Your task to perform on an android device: Show me recent news Image 0: 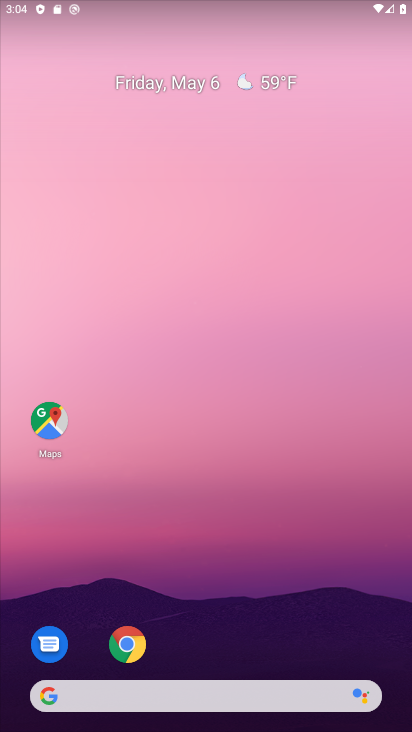
Step 0: drag from (234, 465) to (170, 170)
Your task to perform on an android device: Show me recent news Image 1: 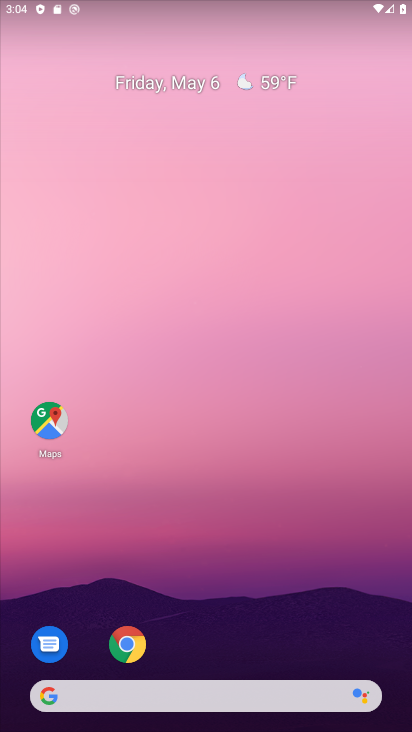
Step 1: drag from (209, 563) to (199, 53)
Your task to perform on an android device: Show me recent news Image 2: 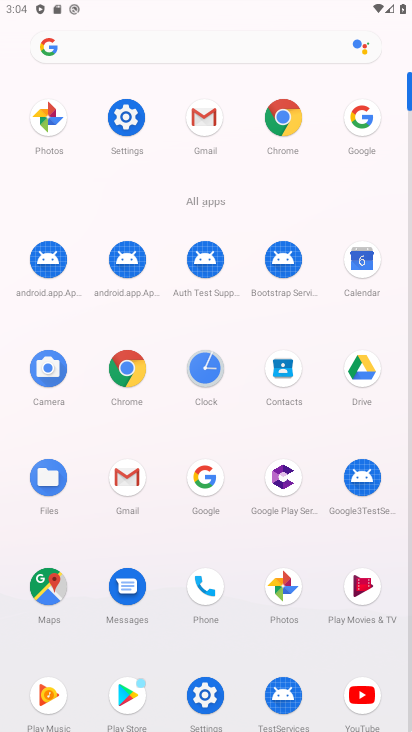
Step 2: click (360, 115)
Your task to perform on an android device: Show me recent news Image 3: 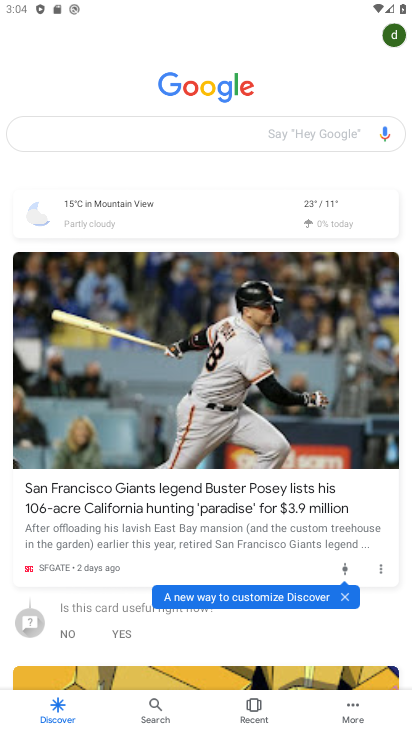
Step 3: click (212, 132)
Your task to perform on an android device: Show me recent news Image 4: 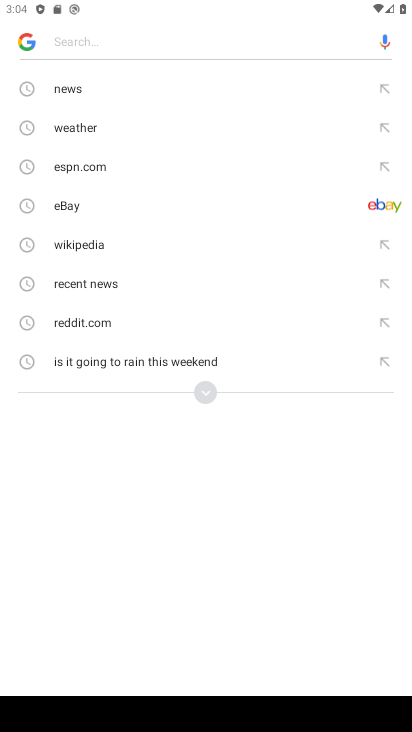
Step 4: click (110, 279)
Your task to perform on an android device: Show me recent news Image 5: 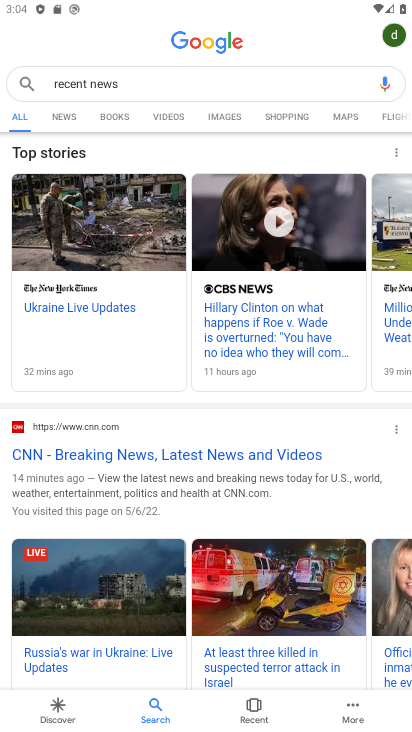
Step 5: task complete